Your task to perform on an android device: turn pop-ups off in chrome Image 0: 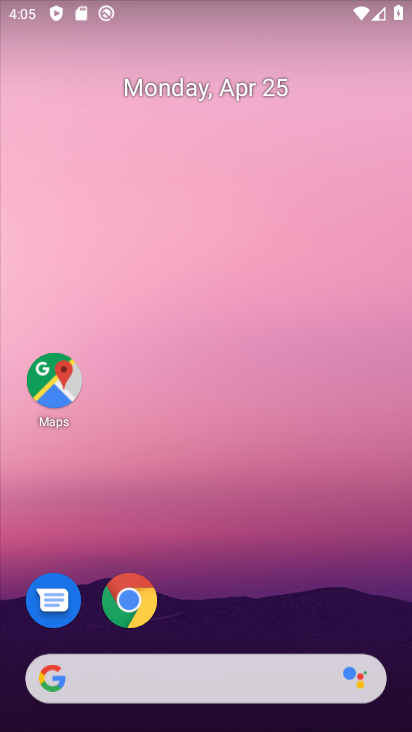
Step 0: drag from (261, 352) to (228, 0)
Your task to perform on an android device: turn pop-ups off in chrome Image 1: 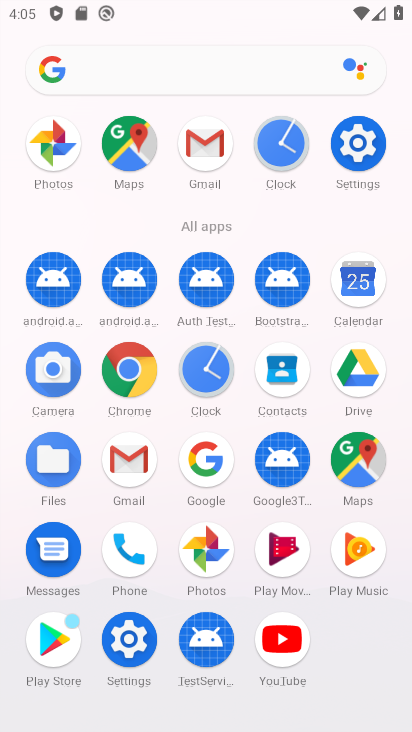
Step 1: drag from (4, 480) to (9, 166)
Your task to perform on an android device: turn pop-ups off in chrome Image 2: 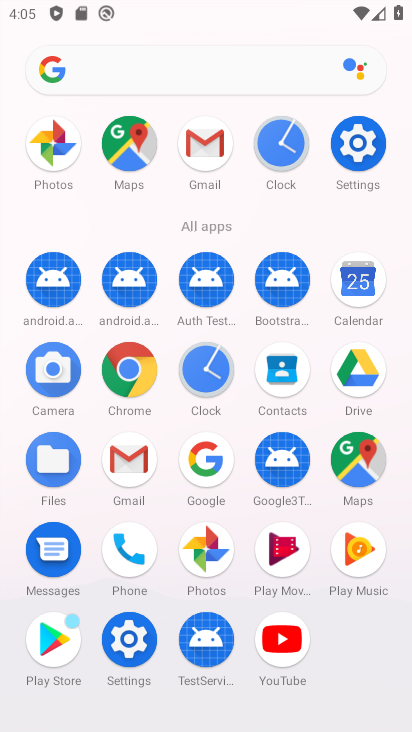
Step 2: click (121, 374)
Your task to perform on an android device: turn pop-ups off in chrome Image 3: 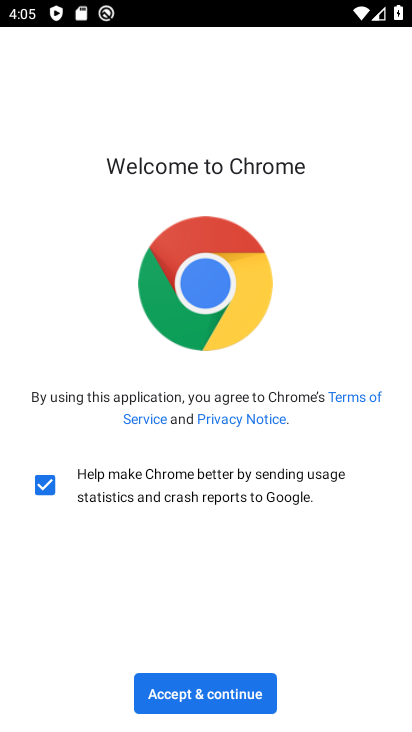
Step 3: click (225, 686)
Your task to perform on an android device: turn pop-ups off in chrome Image 4: 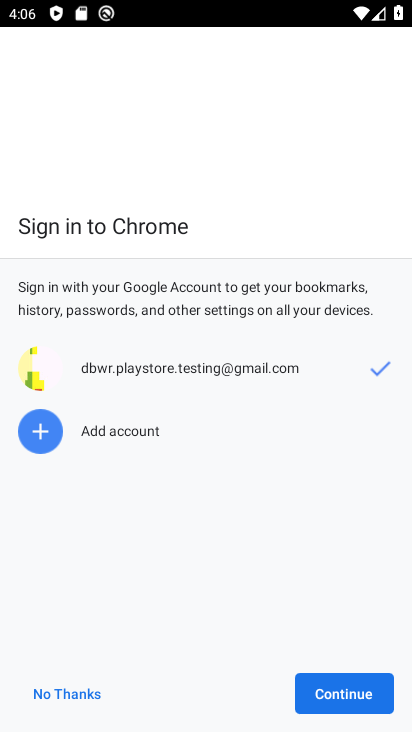
Step 4: click (318, 696)
Your task to perform on an android device: turn pop-ups off in chrome Image 5: 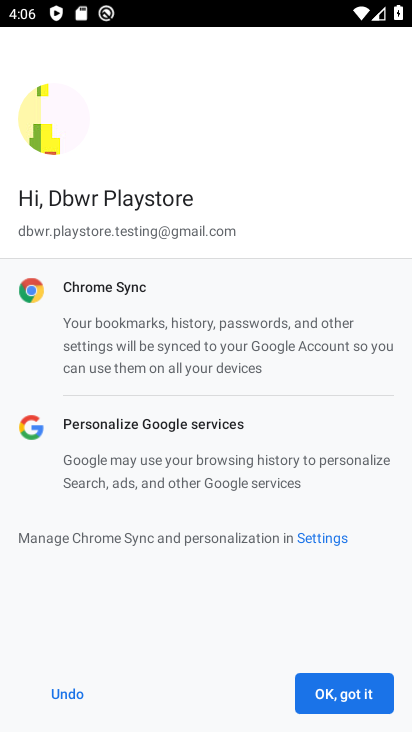
Step 5: click (343, 699)
Your task to perform on an android device: turn pop-ups off in chrome Image 6: 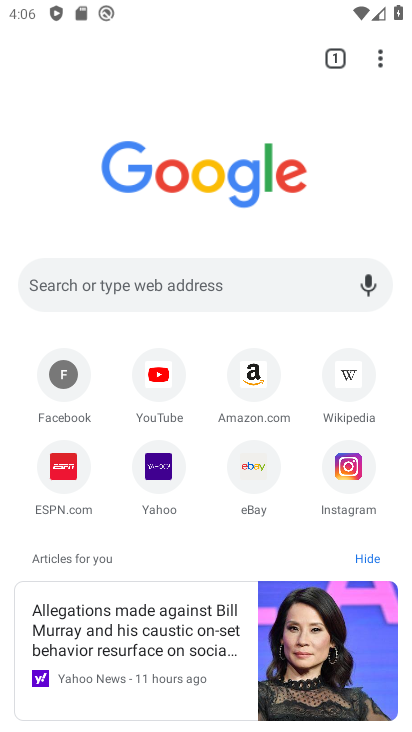
Step 6: drag from (376, 59) to (188, 487)
Your task to perform on an android device: turn pop-ups off in chrome Image 7: 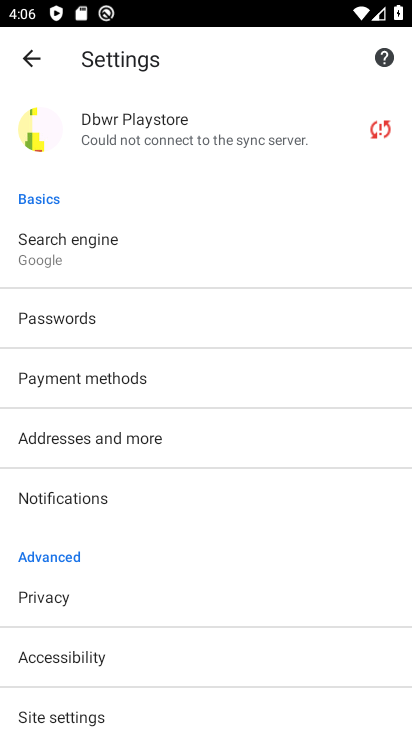
Step 7: drag from (280, 481) to (271, 167)
Your task to perform on an android device: turn pop-ups off in chrome Image 8: 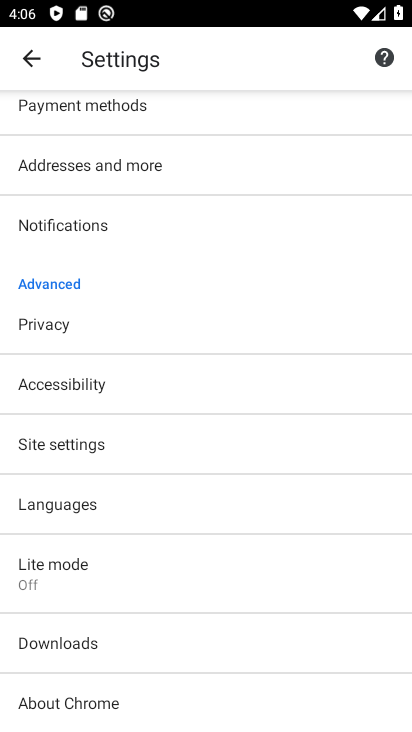
Step 8: drag from (280, 601) to (237, 149)
Your task to perform on an android device: turn pop-ups off in chrome Image 9: 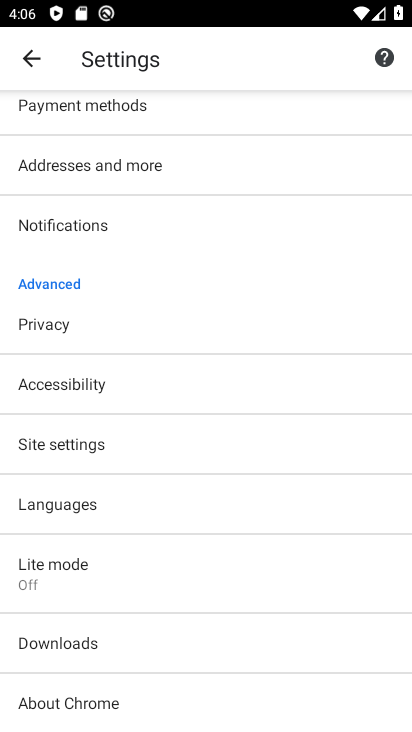
Step 9: drag from (177, 269) to (170, 557)
Your task to perform on an android device: turn pop-ups off in chrome Image 10: 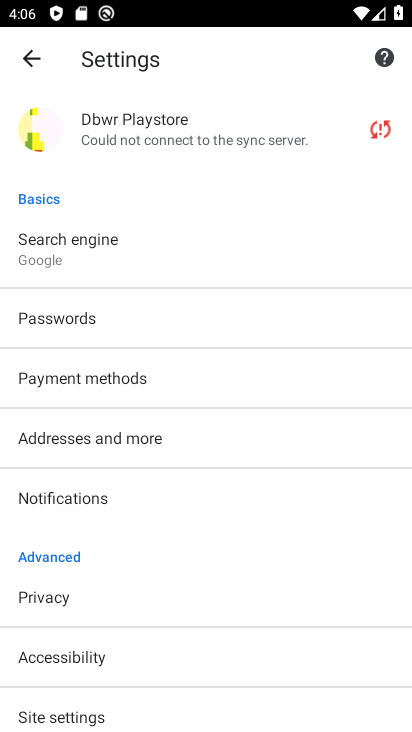
Step 10: click (99, 703)
Your task to perform on an android device: turn pop-ups off in chrome Image 11: 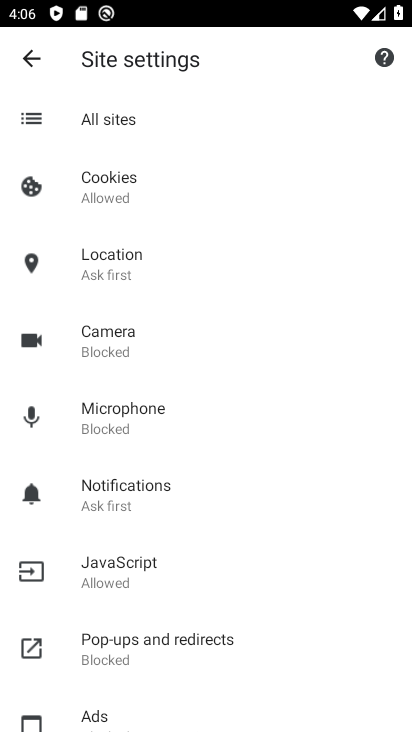
Step 11: drag from (234, 544) to (242, 134)
Your task to perform on an android device: turn pop-ups off in chrome Image 12: 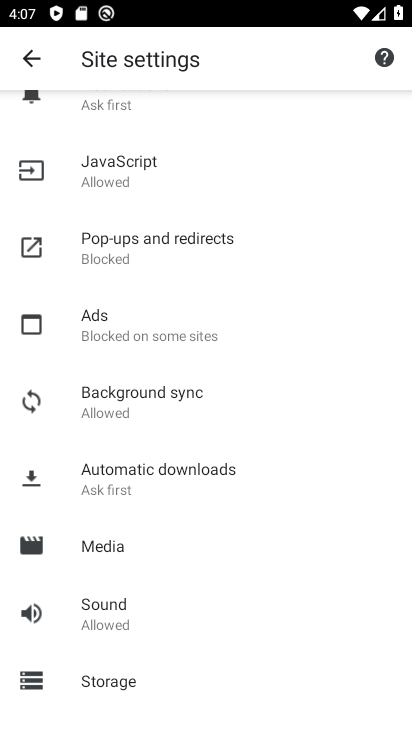
Step 12: drag from (231, 136) to (243, 543)
Your task to perform on an android device: turn pop-ups off in chrome Image 13: 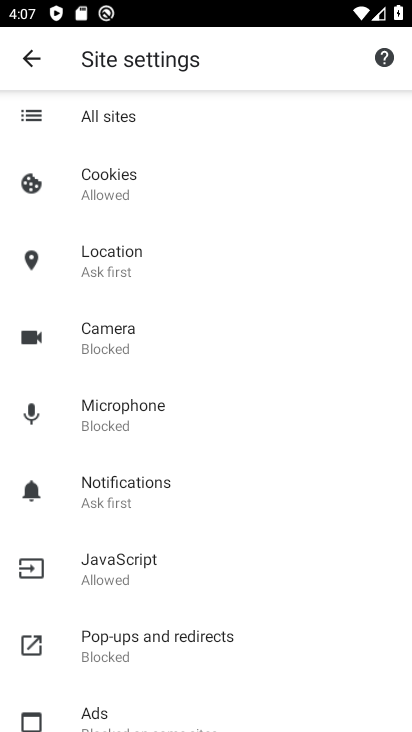
Step 13: click (182, 635)
Your task to perform on an android device: turn pop-ups off in chrome Image 14: 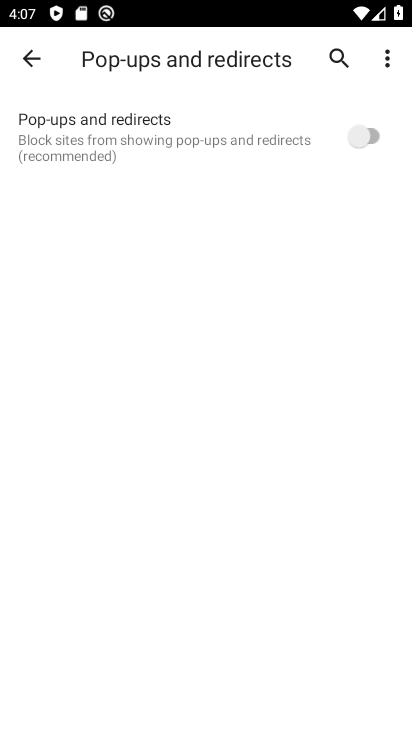
Step 14: task complete